Your task to perform on an android device: Open settings Image 0: 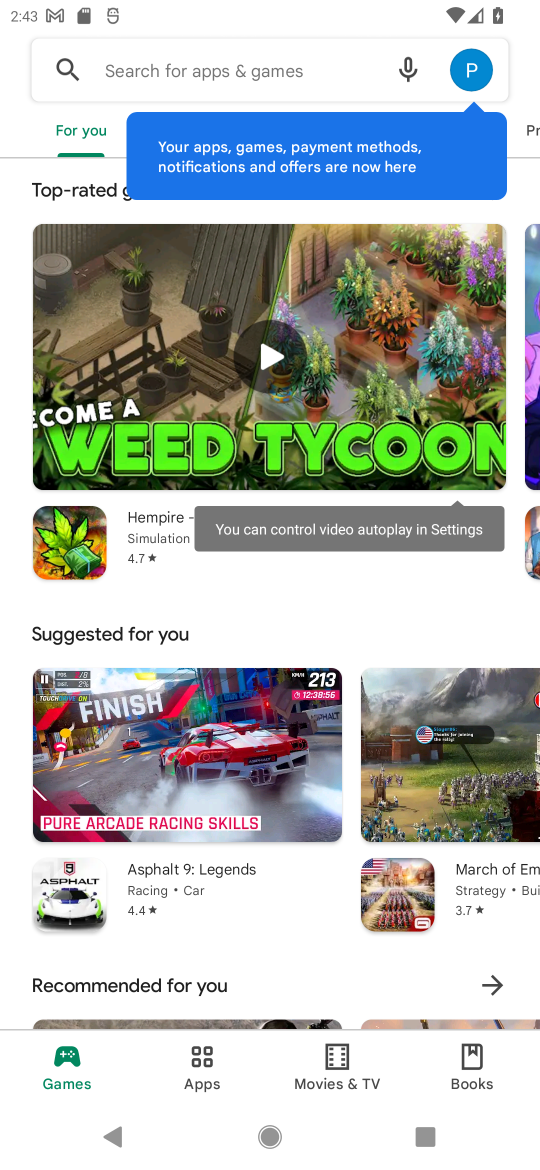
Step 0: task impossible